Your task to perform on an android device: set default search engine in the chrome app Image 0: 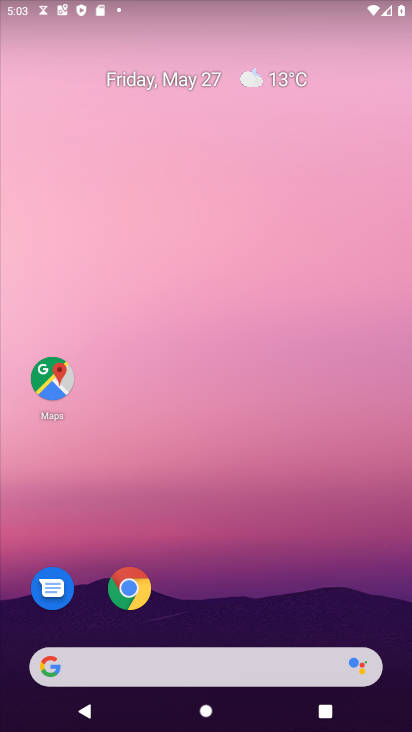
Step 0: click (127, 588)
Your task to perform on an android device: set default search engine in the chrome app Image 1: 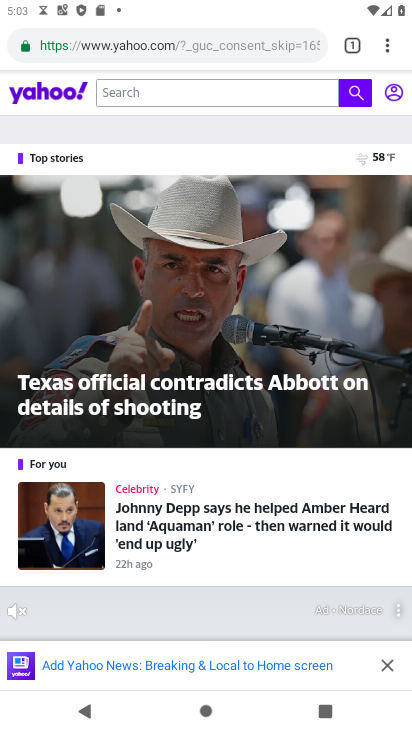
Step 1: drag from (384, 47) to (225, 553)
Your task to perform on an android device: set default search engine in the chrome app Image 2: 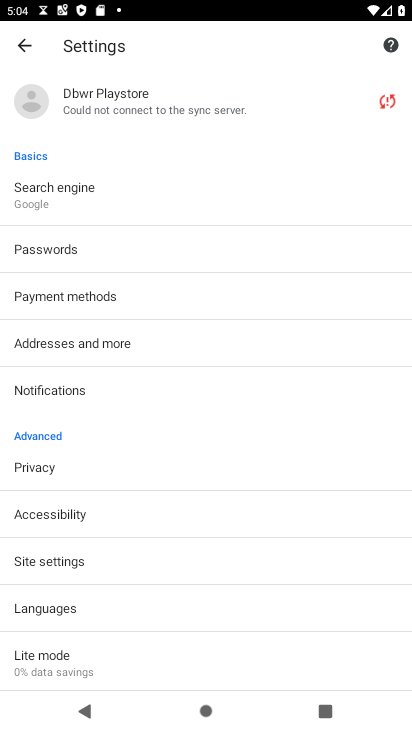
Step 2: click (46, 200)
Your task to perform on an android device: set default search engine in the chrome app Image 3: 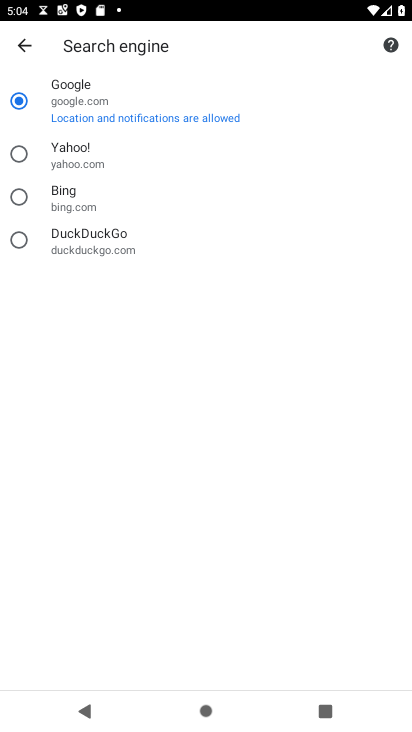
Step 3: click (41, 156)
Your task to perform on an android device: set default search engine in the chrome app Image 4: 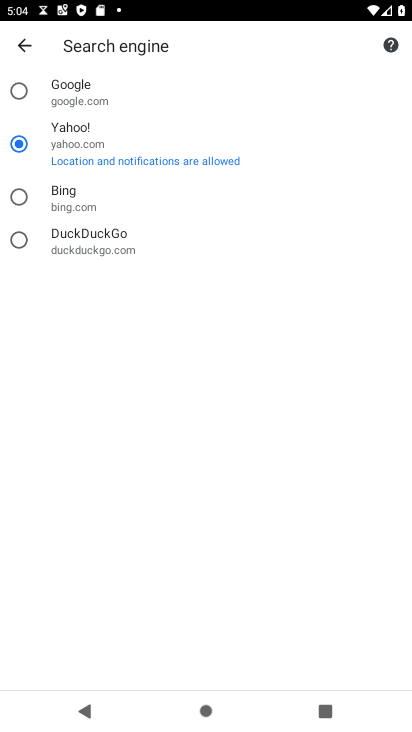
Step 4: task complete